Your task to perform on an android device: move an email to a new category in the gmail app Image 0: 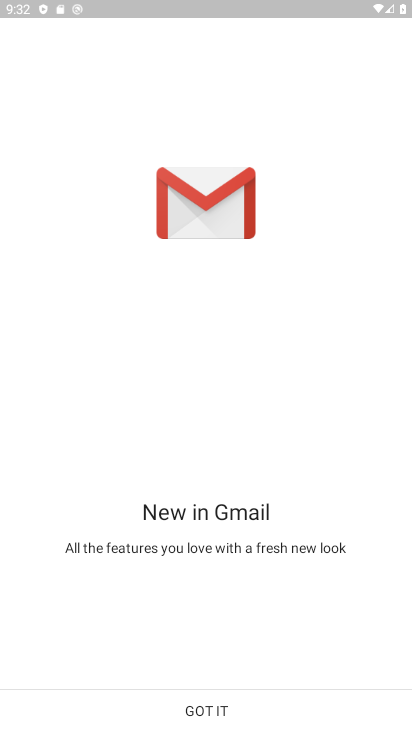
Step 0: click (230, 694)
Your task to perform on an android device: move an email to a new category in the gmail app Image 1: 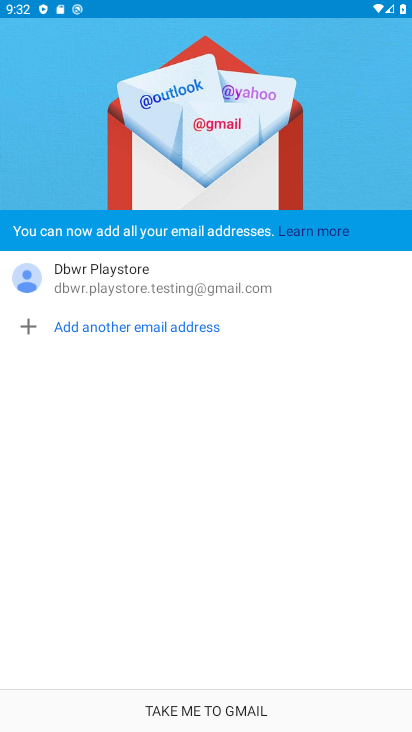
Step 1: click (229, 698)
Your task to perform on an android device: move an email to a new category in the gmail app Image 2: 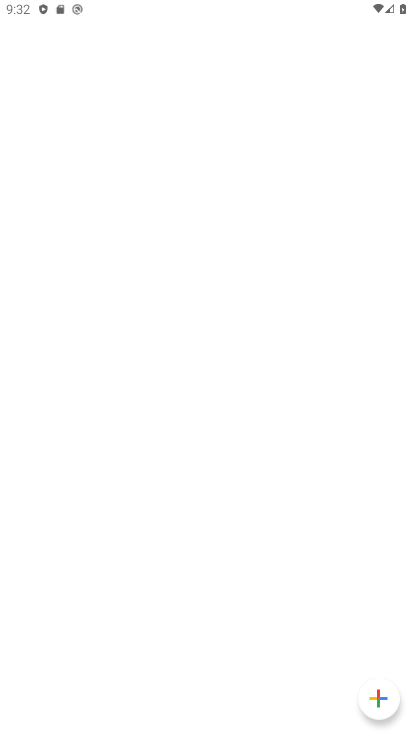
Step 2: click (238, 724)
Your task to perform on an android device: move an email to a new category in the gmail app Image 3: 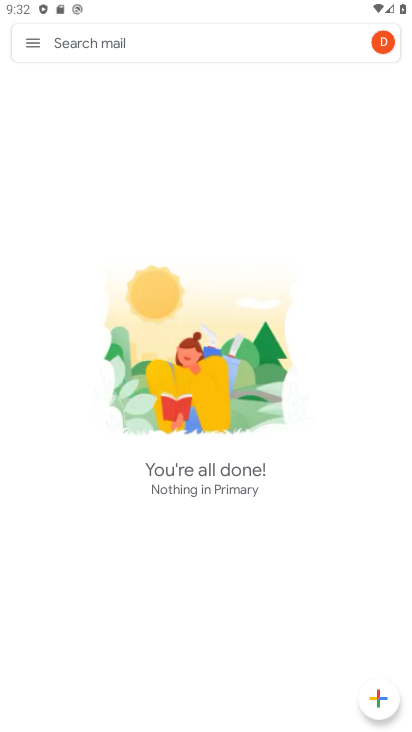
Step 3: click (34, 38)
Your task to perform on an android device: move an email to a new category in the gmail app Image 4: 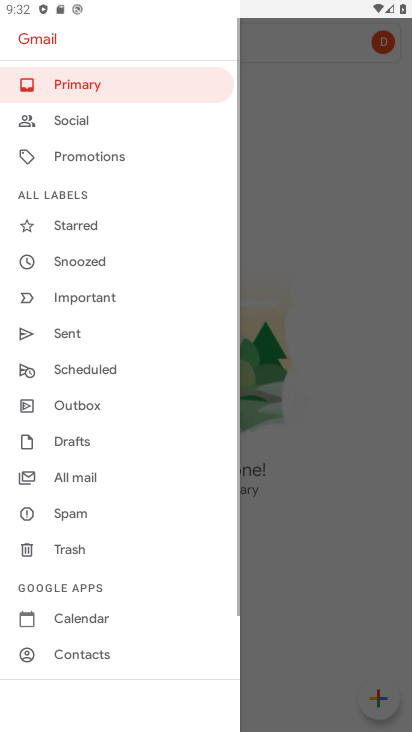
Step 4: drag from (102, 634) to (174, 227)
Your task to perform on an android device: move an email to a new category in the gmail app Image 5: 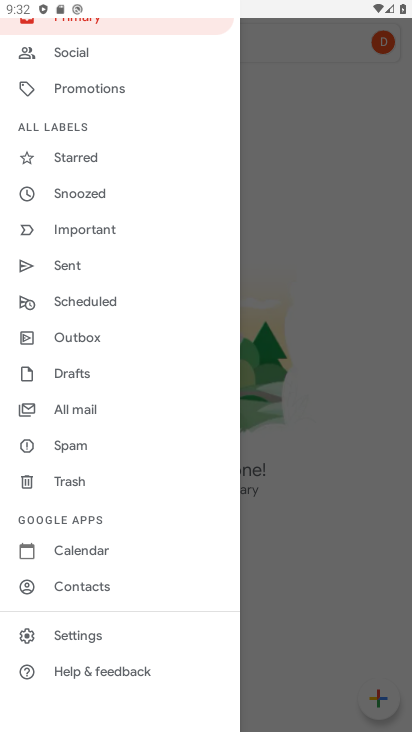
Step 5: click (107, 417)
Your task to perform on an android device: move an email to a new category in the gmail app Image 6: 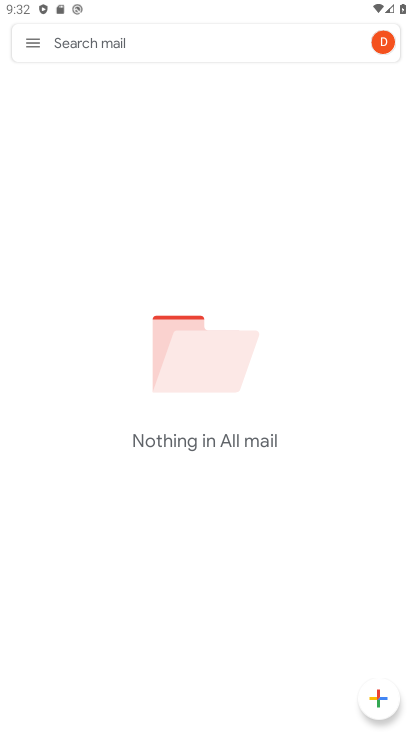
Step 6: task complete